Your task to perform on an android device: turn off notifications settings in the gmail app Image 0: 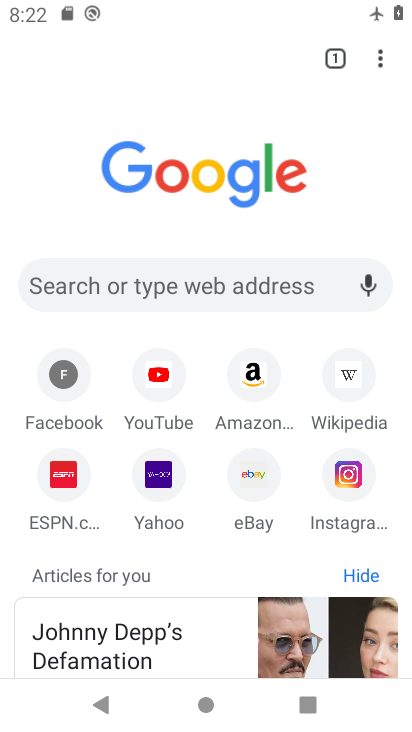
Step 0: press back button
Your task to perform on an android device: turn off notifications settings in the gmail app Image 1: 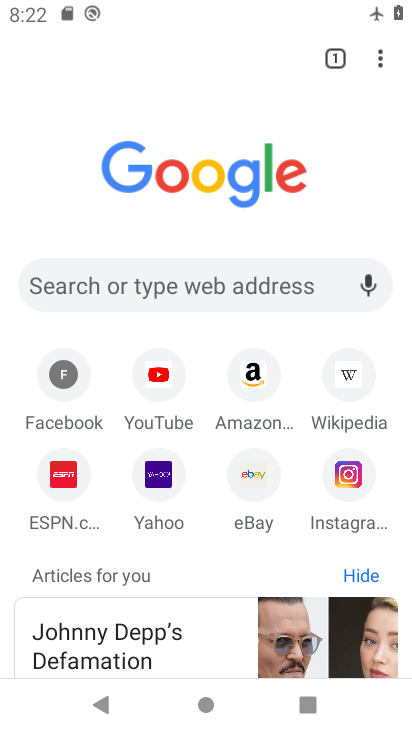
Step 1: press back button
Your task to perform on an android device: turn off notifications settings in the gmail app Image 2: 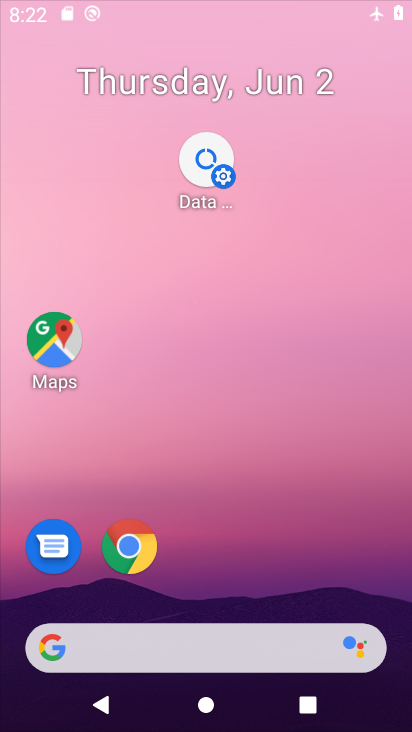
Step 2: press back button
Your task to perform on an android device: turn off notifications settings in the gmail app Image 3: 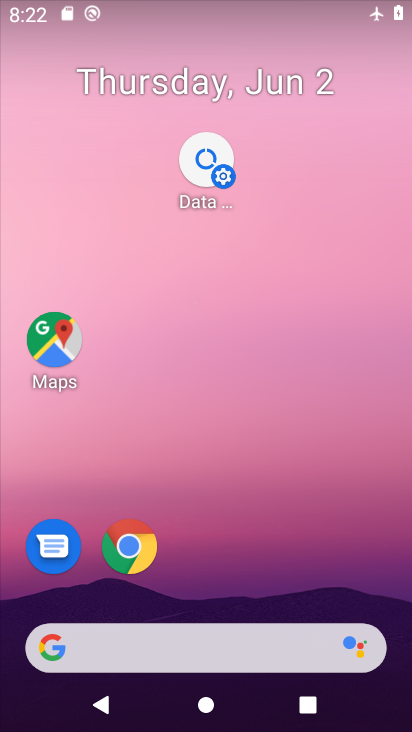
Step 3: press back button
Your task to perform on an android device: turn off notifications settings in the gmail app Image 4: 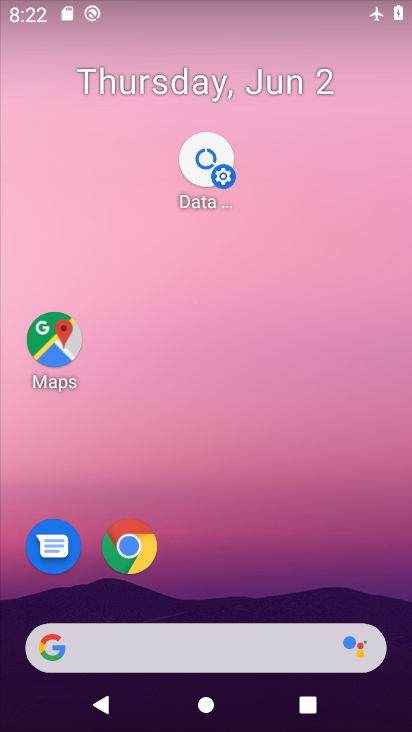
Step 4: drag from (283, 710) to (132, 50)
Your task to perform on an android device: turn off notifications settings in the gmail app Image 5: 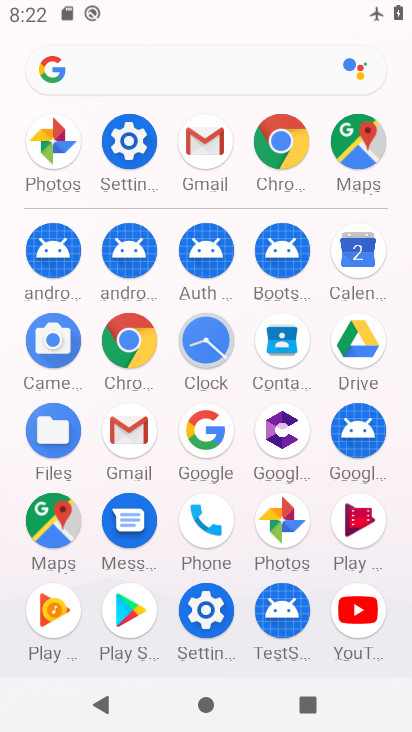
Step 5: click (150, 443)
Your task to perform on an android device: turn off notifications settings in the gmail app Image 6: 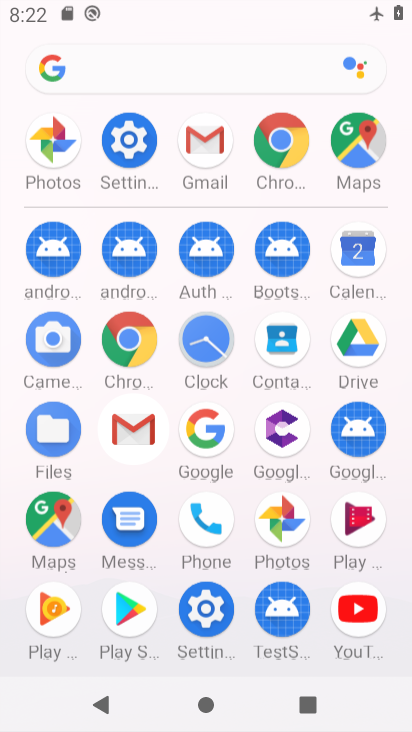
Step 6: click (123, 427)
Your task to perform on an android device: turn off notifications settings in the gmail app Image 7: 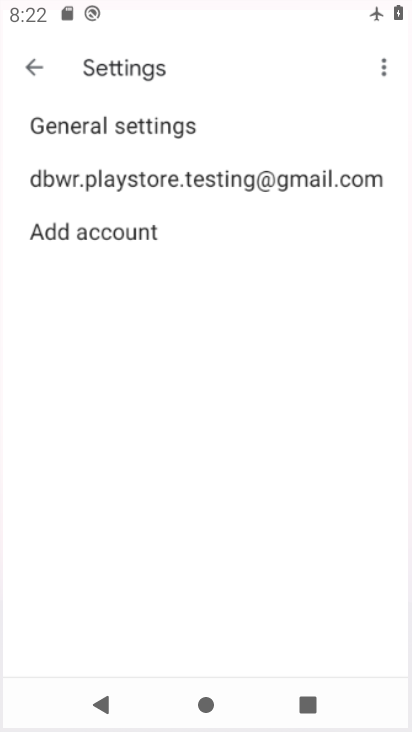
Step 7: click (120, 425)
Your task to perform on an android device: turn off notifications settings in the gmail app Image 8: 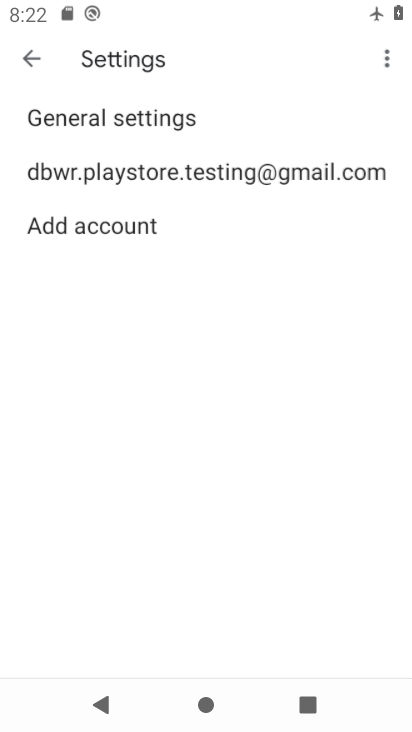
Step 8: click (120, 427)
Your task to perform on an android device: turn off notifications settings in the gmail app Image 9: 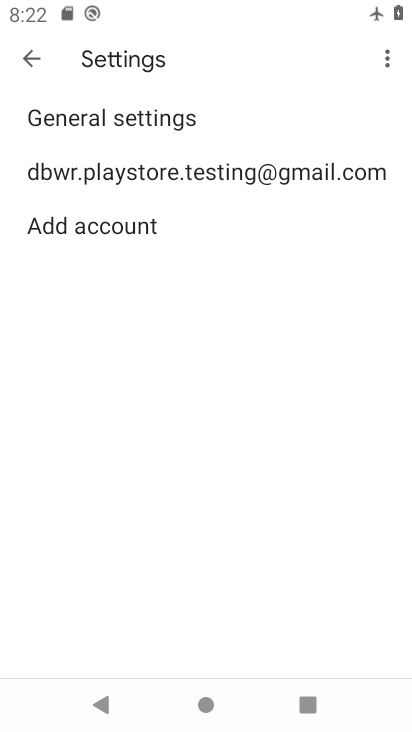
Step 9: click (145, 170)
Your task to perform on an android device: turn off notifications settings in the gmail app Image 10: 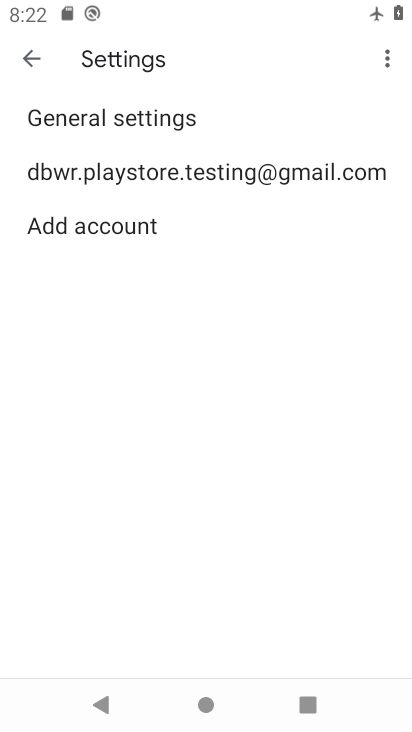
Step 10: click (145, 170)
Your task to perform on an android device: turn off notifications settings in the gmail app Image 11: 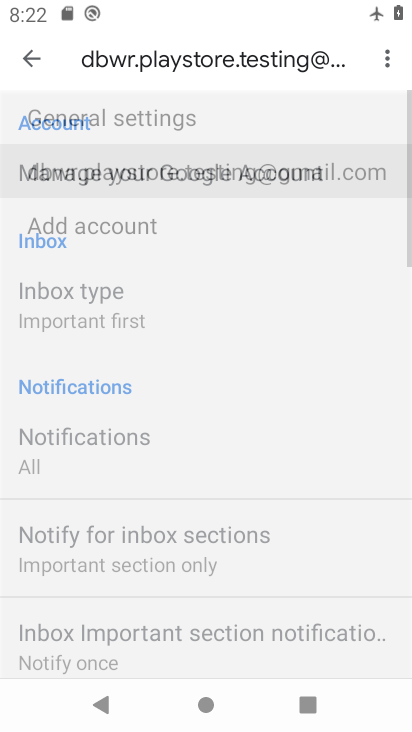
Step 11: click (145, 170)
Your task to perform on an android device: turn off notifications settings in the gmail app Image 12: 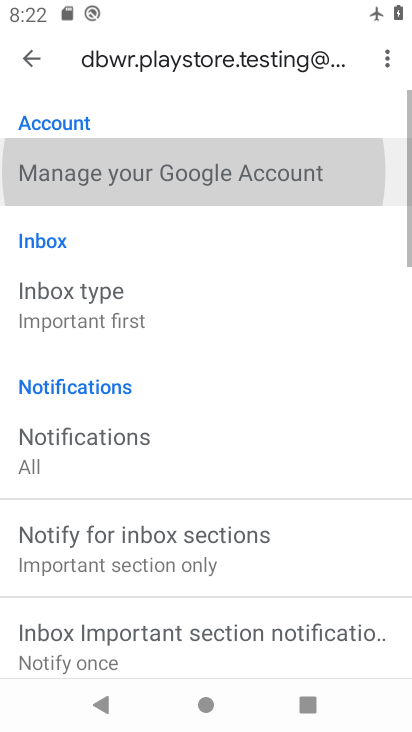
Step 12: click (140, 169)
Your task to perform on an android device: turn off notifications settings in the gmail app Image 13: 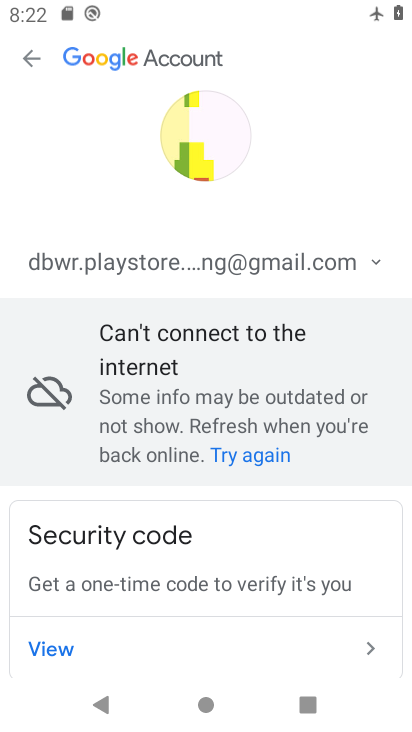
Step 13: click (34, 54)
Your task to perform on an android device: turn off notifications settings in the gmail app Image 14: 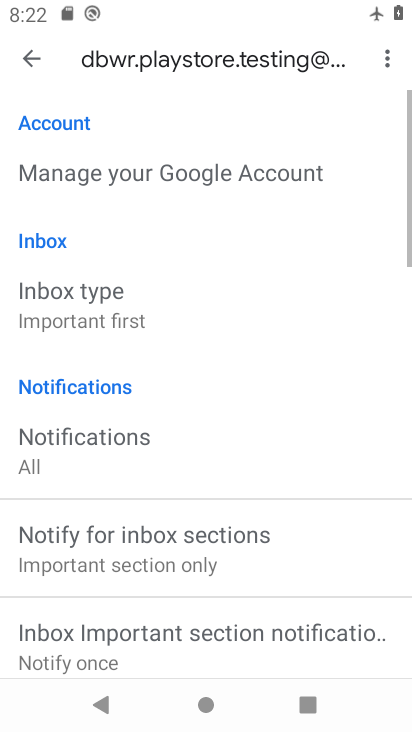
Step 14: click (86, 434)
Your task to perform on an android device: turn off notifications settings in the gmail app Image 15: 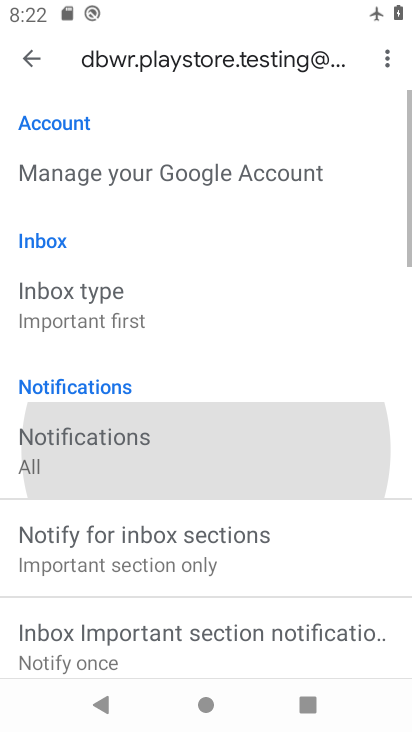
Step 15: click (86, 434)
Your task to perform on an android device: turn off notifications settings in the gmail app Image 16: 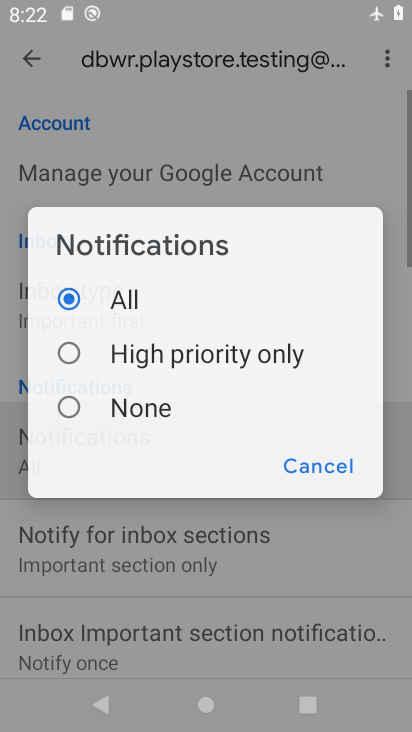
Step 16: click (86, 434)
Your task to perform on an android device: turn off notifications settings in the gmail app Image 17: 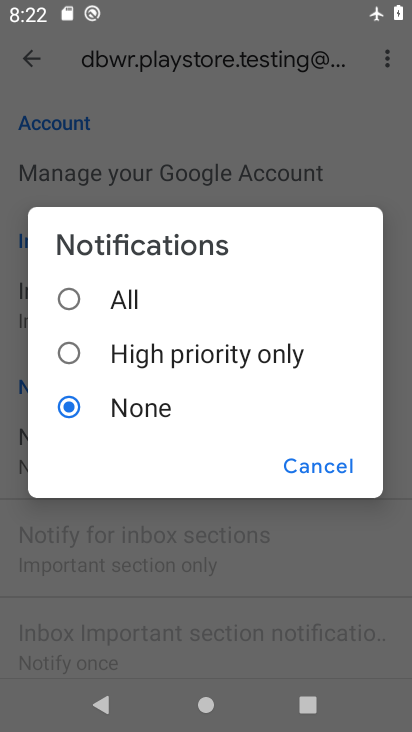
Step 17: task complete